Your task to perform on an android device: Open Chrome and go to the settings page Image 0: 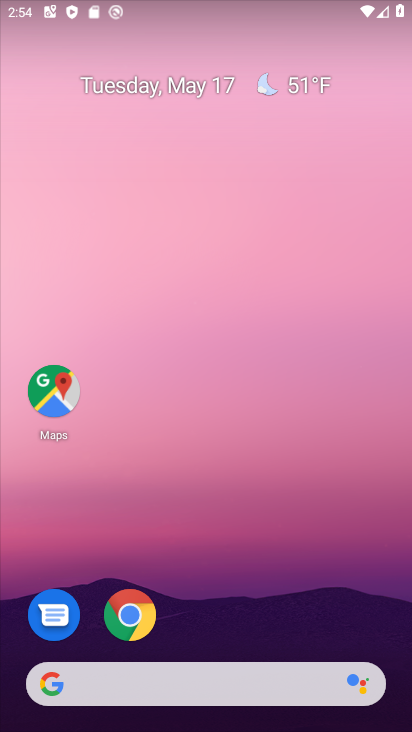
Step 0: press home button
Your task to perform on an android device: Open Chrome and go to the settings page Image 1: 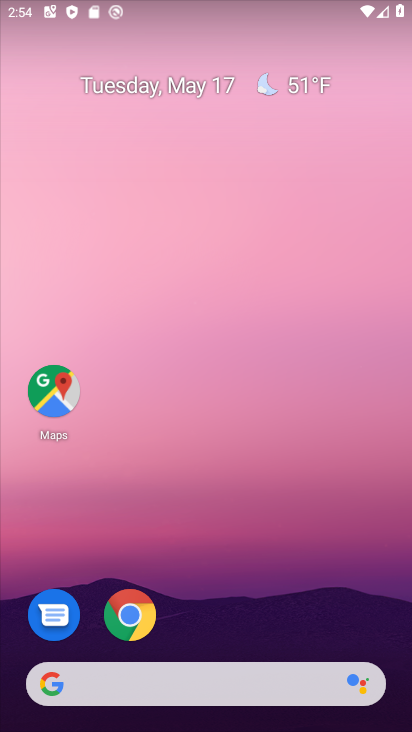
Step 1: click (123, 607)
Your task to perform on an android device: Open Chrome and go to the settings page Image 2: 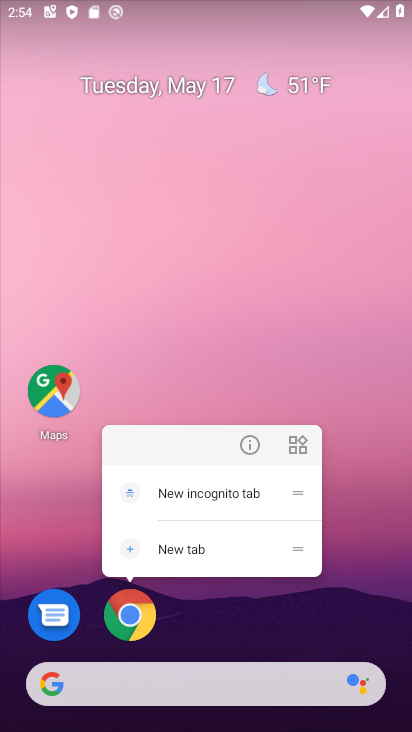
Step 2: click (127, 609)
Your task to perform on an android device: Open Chrome and go to the settings page Image 3: 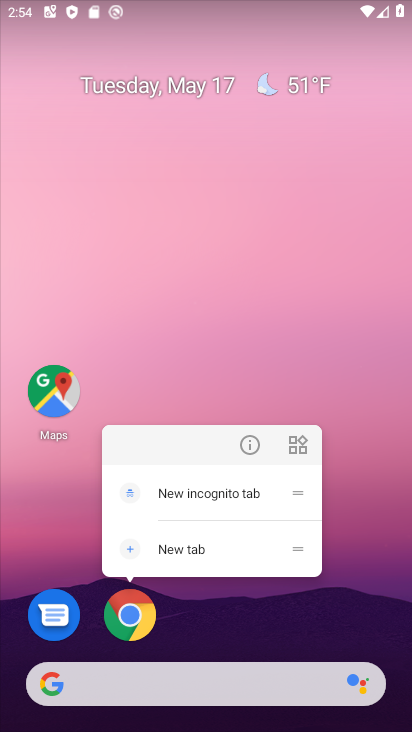
Step 3: click (127, 609)
Your task to perform on an android device: Open Chrome and go to the settings page Image 4: 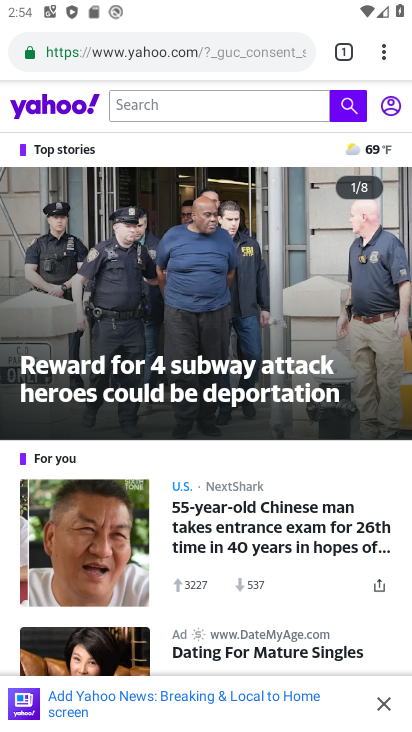
Step 4: click (384, 48)
Your task to perform on an android device: Open Chrome and go to the settings page Image 5: 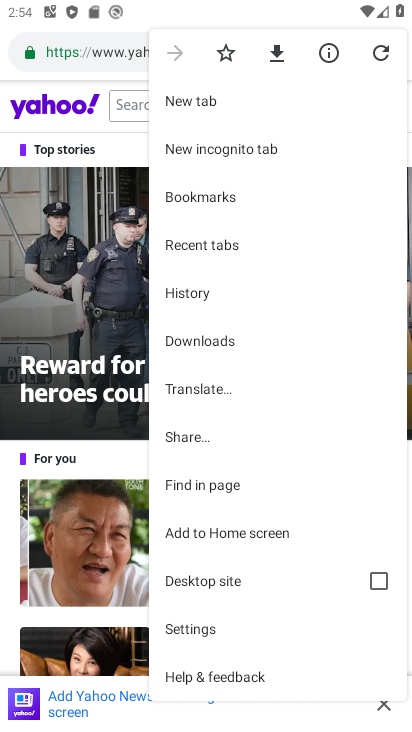
Step 5: click (229, 631)
Your task to perform on an android device: Open Chrome and go to the settings page Image 6: 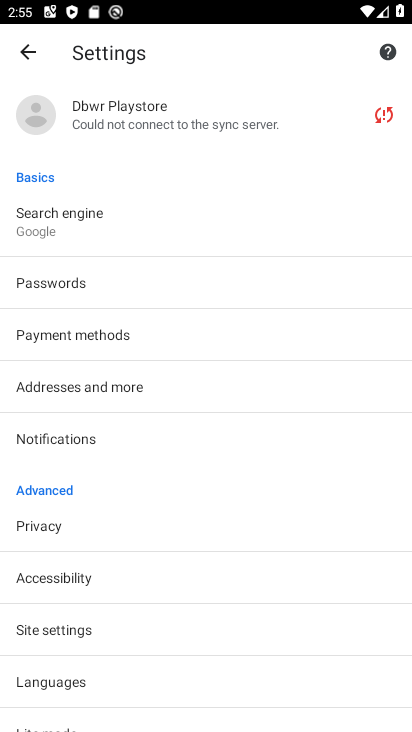
Step 6: task complete